Your task to perform on an android device: toggle airplane mode Image 0: 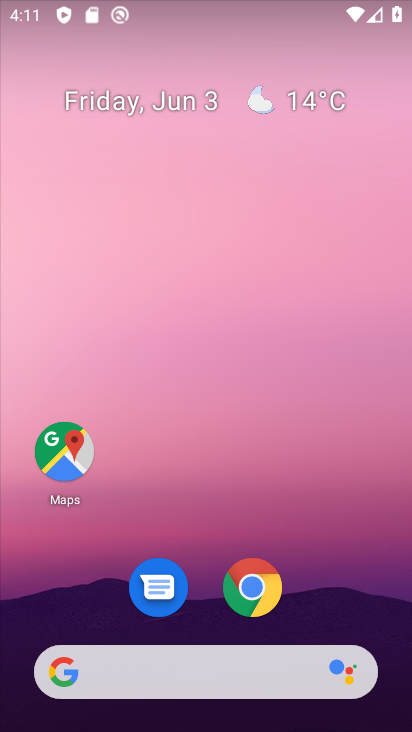
Step 0: drag from (96, 654) to (96, 313)
Your task to perform on an android device: toggle airplane mode Image 1: 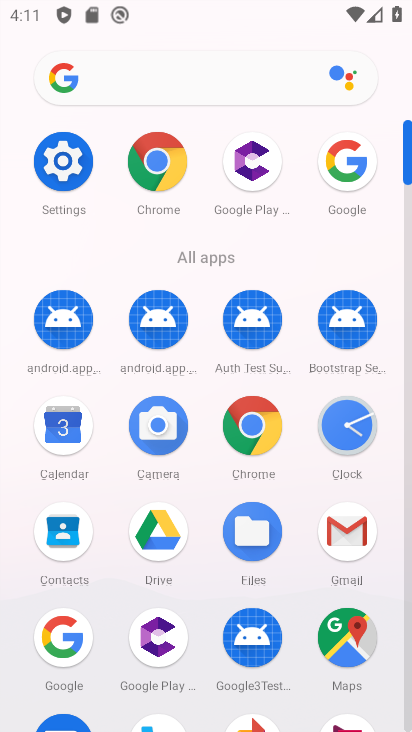
Step 1: click (75, 166)
Your task to perform on an android device: toggle airplane mode Image 2: 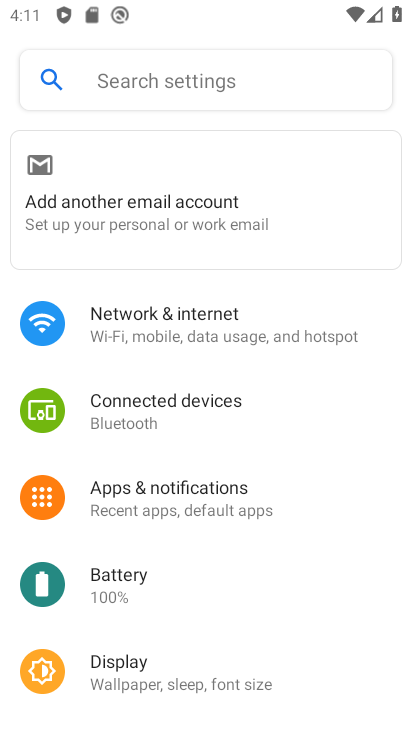
Step 2: click (134, 327)
Your task to perform on an android device: toggle airplane mode Image 3: 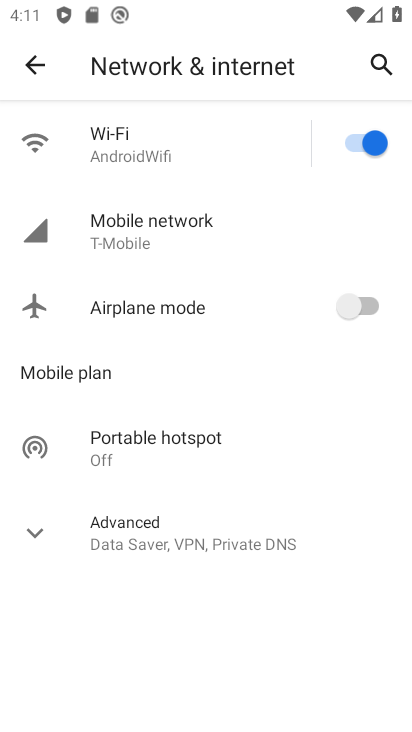
Step 3: click (351, 309)
Your task to perform on an android device: toggle airplane mode Image 4: 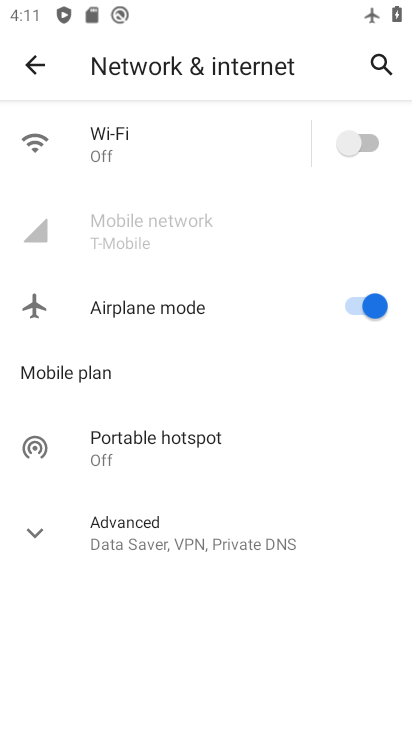
Step 4: task complete